Your task to perform on an android device: Open the gallery Image 0: 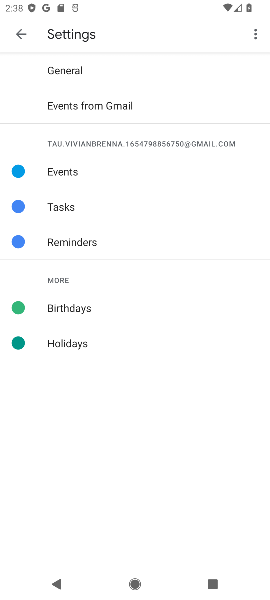
Step 0: press home button
Your task to perform on an android device: Open the gallery Image 1: 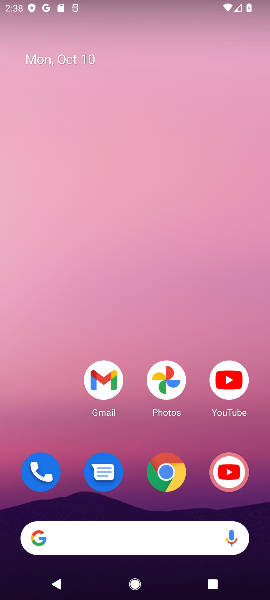
Step 1: drag from (138, 490) to (133, 112)
Your task to perform on an android device: Open the gallery Image 2: 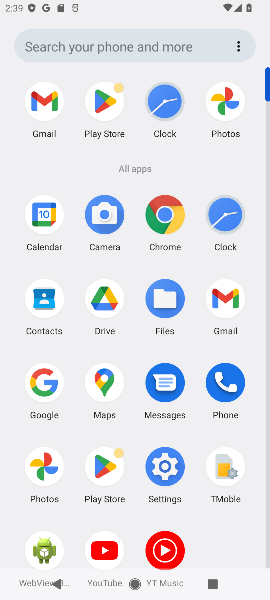
Step 2: drag from (134, 469) to (134, 271)
Your task to perform on an android device: Open the gallery Image 3: 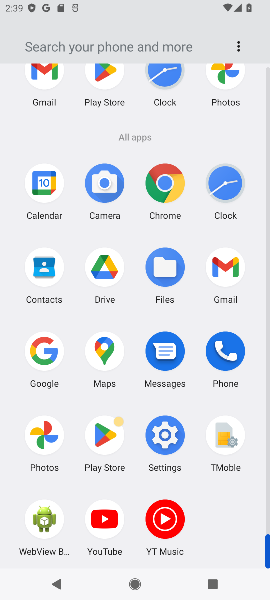
Step 3: drag from (121, 175) to (110, 367)
Your task to perform on an android device: Open the gallery Image 4: 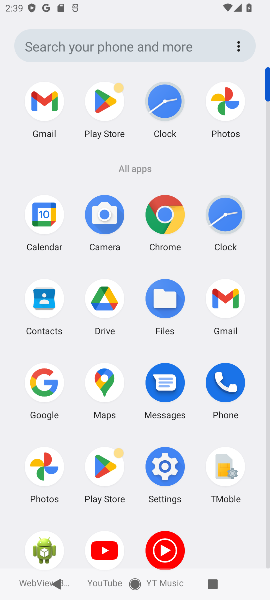
Step 4: drag from (133, 416) to (176, 112)
Your task to perform on an android device: Open the gallery Image 5: 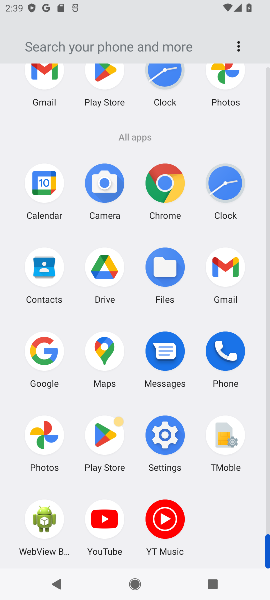
Step 5: drag from (143, 165) to (162, 561)
Your task to perform on an android device: Open the gallery Image 6: 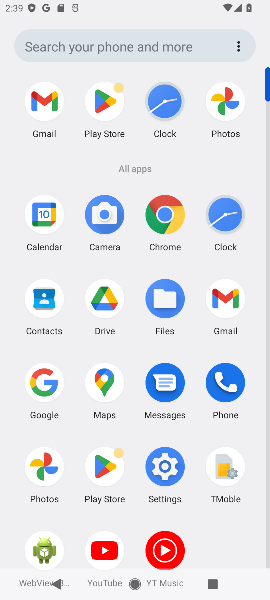
Step 6: click (224, 113)
Your task to perform on an android device: Open the gallery Image 7: 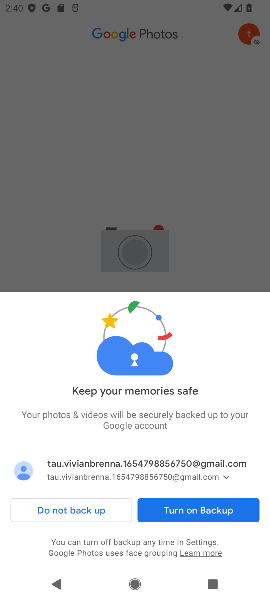
Step 7: click (182, 506)
Your task to perform on an android device: Open the gallery Image 8: 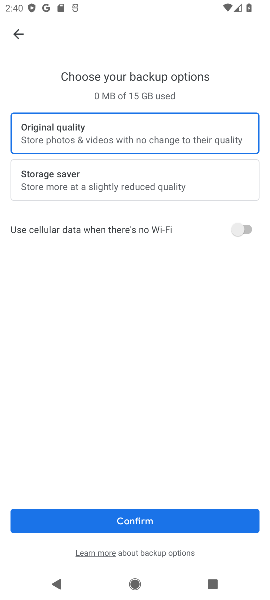
Step 8: click (171, 507)
Your task to perform on an android device: Open the gallery Image 9: 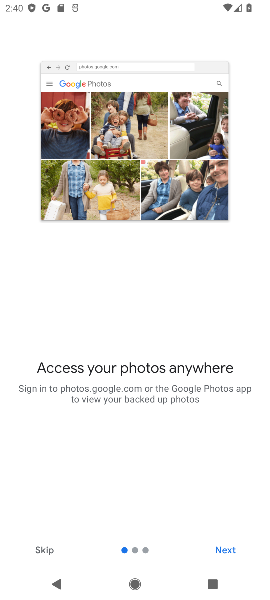
Step 9: task complete